Your task to perform on an android device: toggle wifi Image 0: 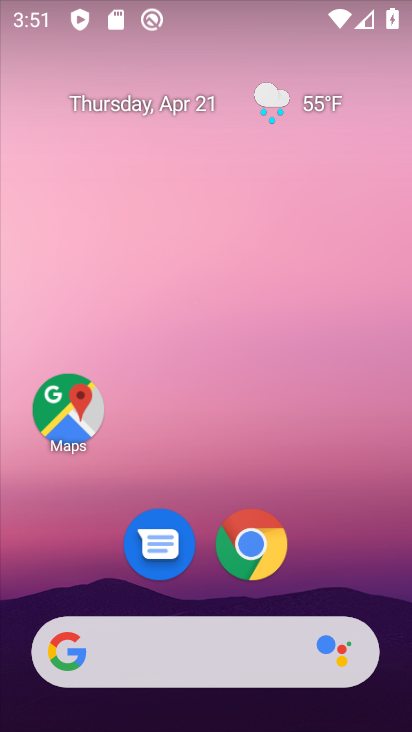
Step 0: drag from (209, 636) to (218, 171)
Your task to perform on an android device: toggle wifi Image 1: 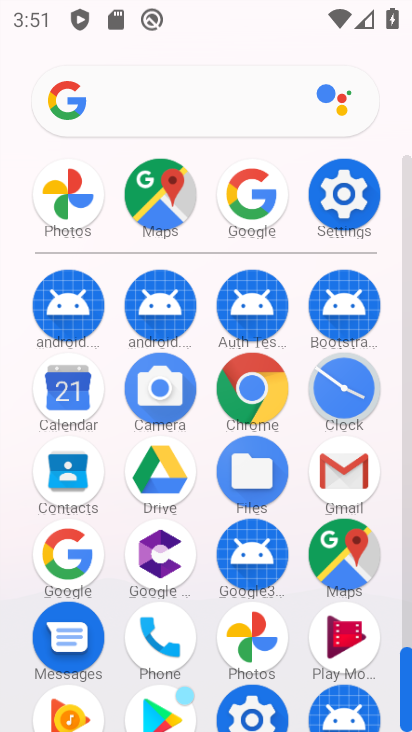
Step 1: click (323, 197)
Your task to perform on an android device: toggle wifi Image 2: 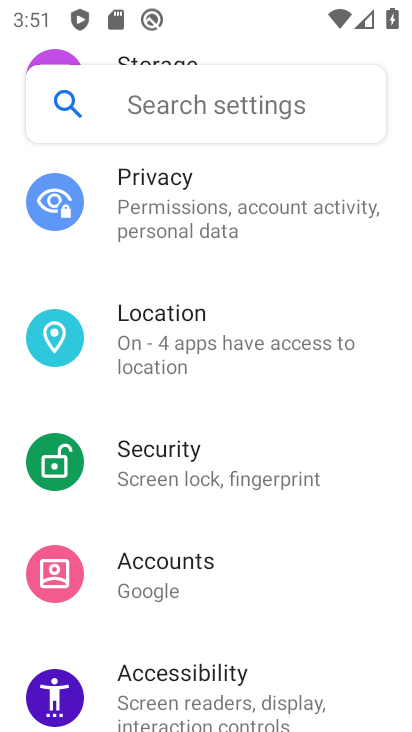
Step 2: drag from (187, 200) to (182, 689)
Your task to perform on an android device: toggle wifi Image 3: 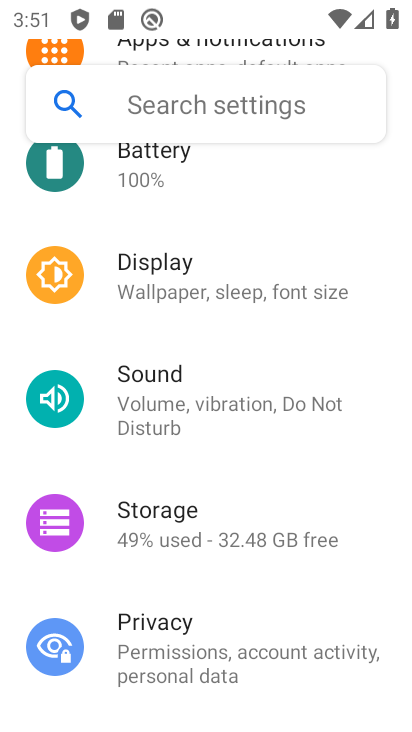
Step 3: drag from (199, 245) to (219, 600)
Your task to perform on an android device: toggle wifi Image 4: 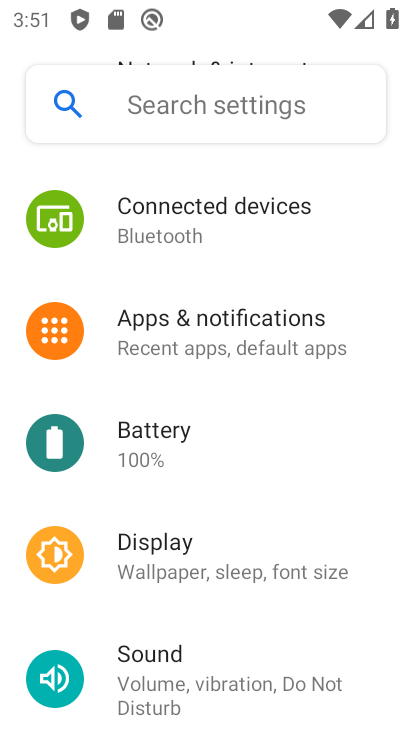
Step 4: drag from (200, 295) to (250, 647)
Your task to perform on an android device: toggle wifi Image 5: 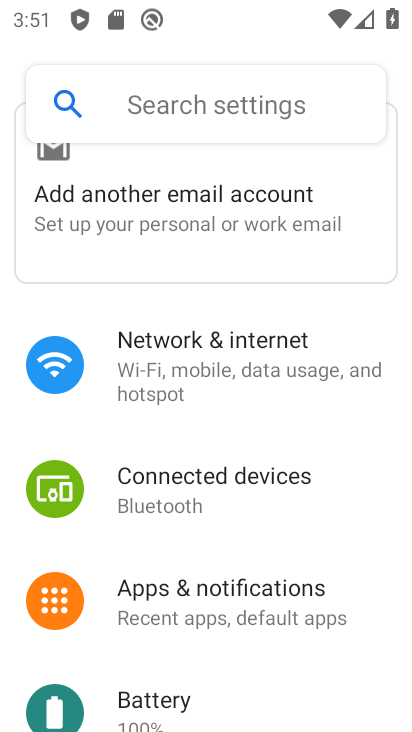
Step 5: click (192, 359)
Your task to perform on an android device: toggle wifi Image 6: 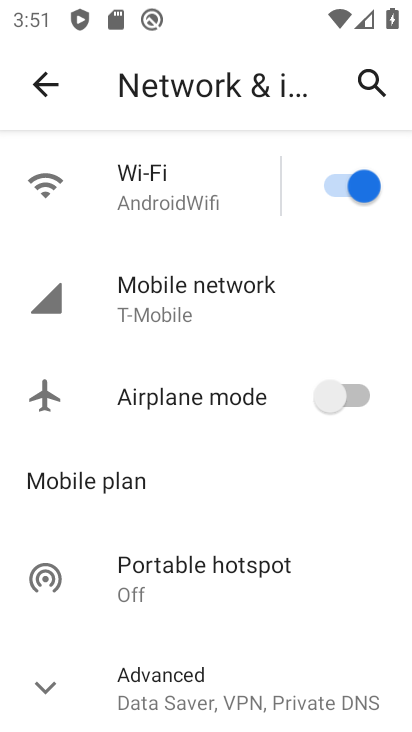
Step 6: click (344, 179)
Your task to perform on an android device: toggle wifi Image 7: 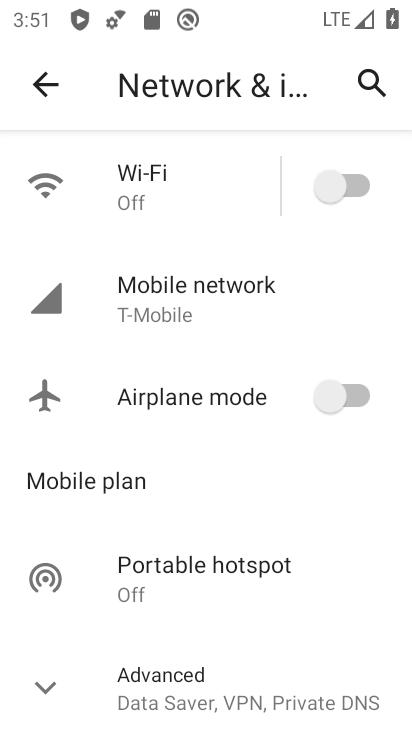
Step 7: task complete